Your task to perform on an android device: turn on translation in the chrome app Image 0: 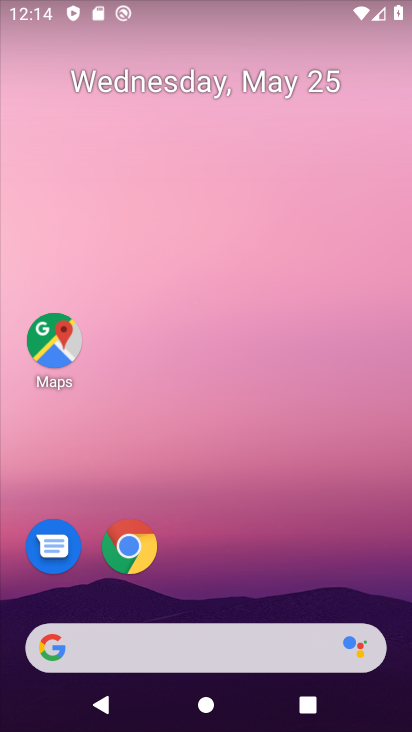
Step 0: click (114, 536)
Your task to perform on an android device: turn on translation in the chrome app Image 1: 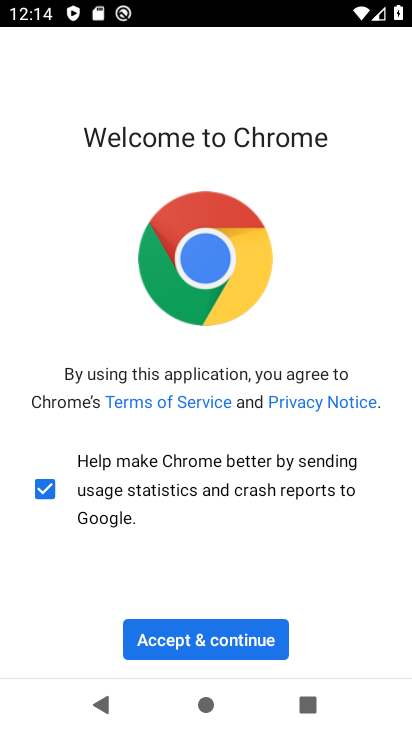
Step 1: click (254, 650)
Your task to perform on an android device: turn on translation in the chrome app Image 2: 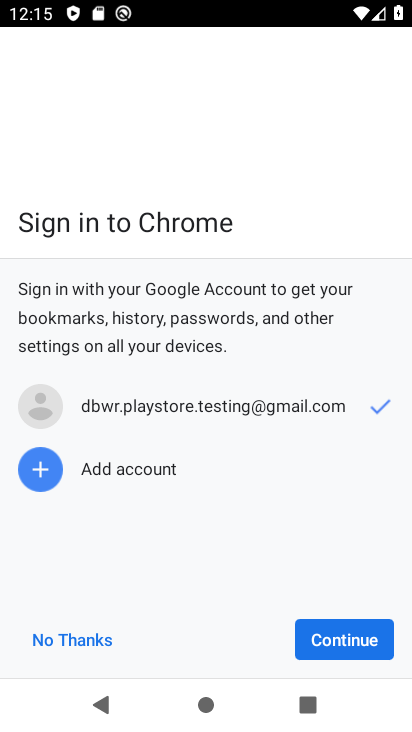
Step 2: click (317, 644)
Your task to perform on an android device: turn on translation in the chrome app Image 3: 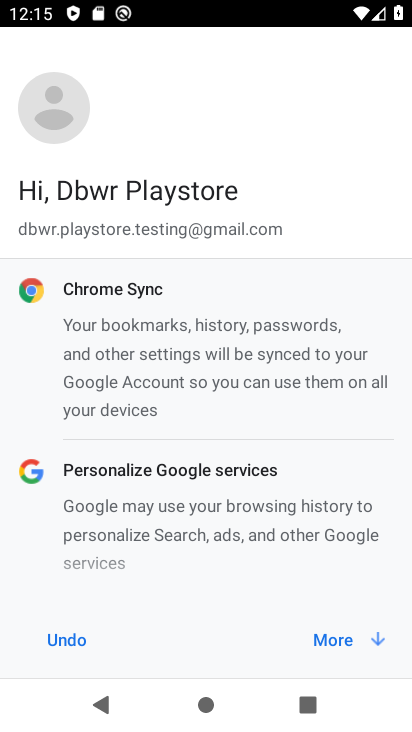
Step 3: click (317, 644)
Your task to perform on an android device: turn on translation in the chrome app Image 4: 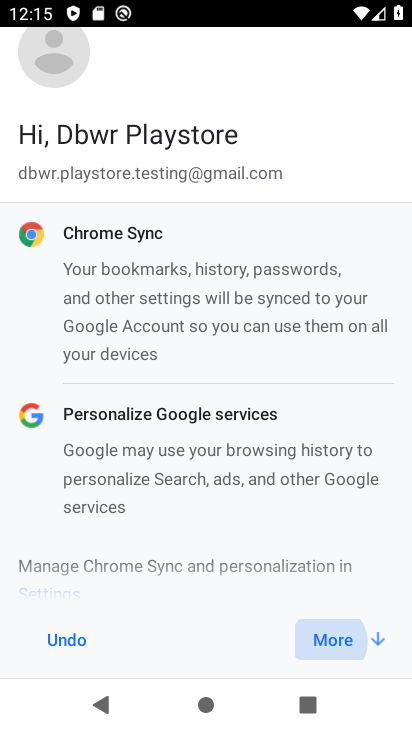
Step 4: click (317, 644)
Your task to perform on an android device: turn on translation in the chrome app Image 5: 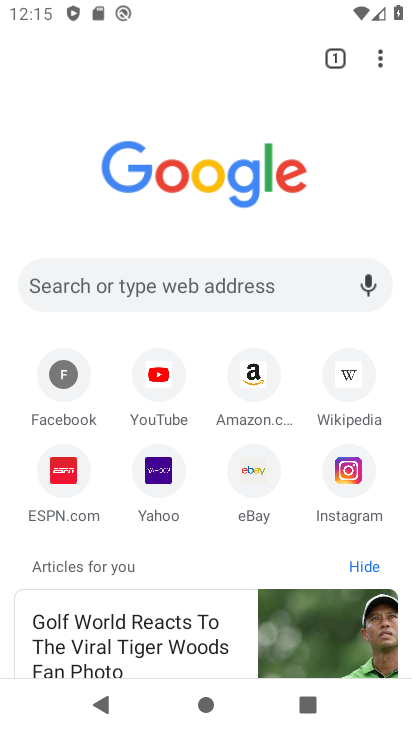
Step 5: click (393, 42)
Your task to perform on an android device: turn on translation in the chrome app Image 6: 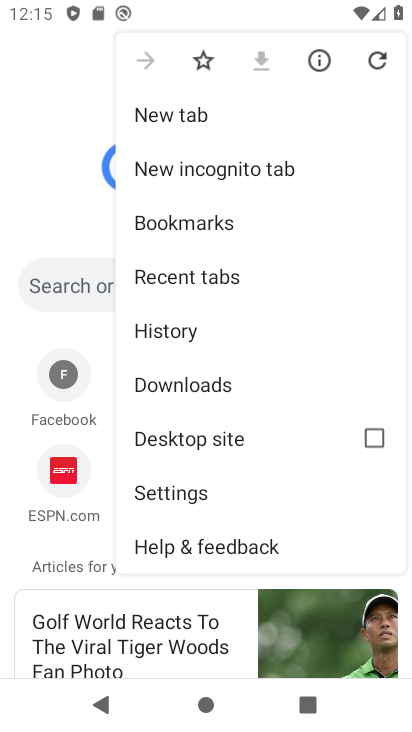
Step 6: click (231, 493)
Your task to perform on an android device: turn on translation in the chrome app Image 7: 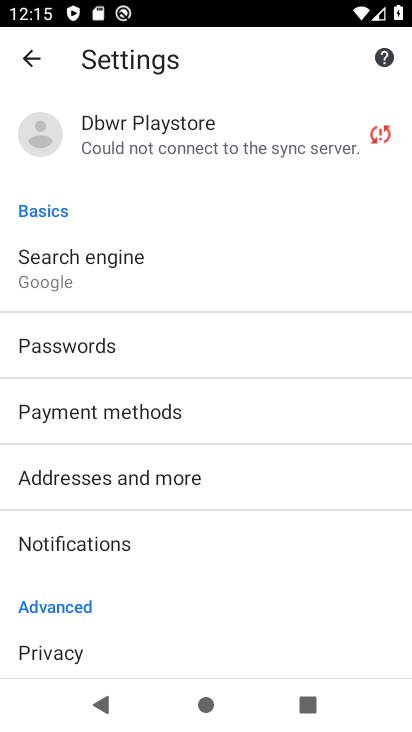
Step 7: drag from (176, 567) to (169, 244)
Your task to perform on an android device: turn on translation in the chrome app Image 8: 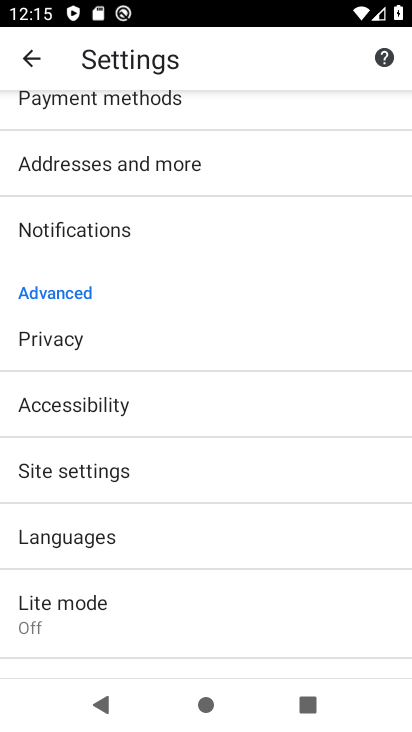
Step 8: click (172, 528)
Your task to perform on an android device: turn on translation in the chrome app Image 9: 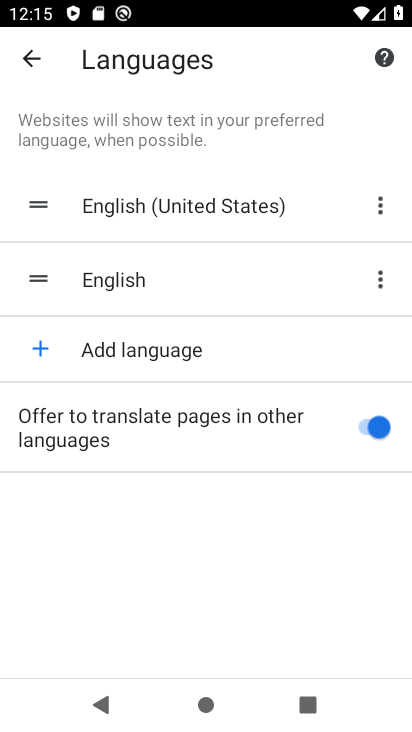
Step 9: click (332, 415)
Your task to perform on an android device: turn on translation in the chrome app Image 10: 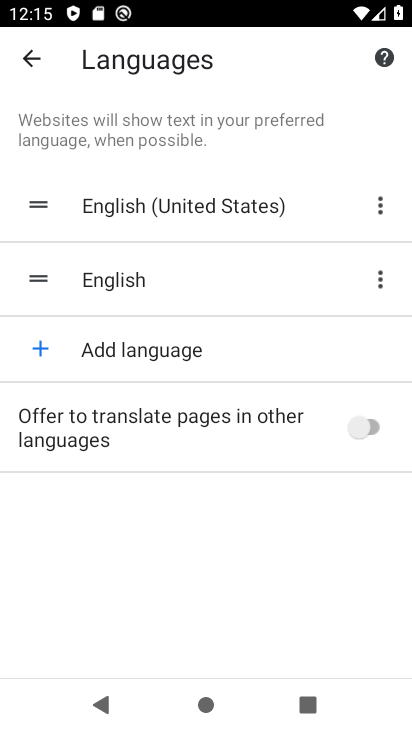
Step 10: click (332, 415)
Your task to perform on an android device: turn on translation in the chrome app Image 11: 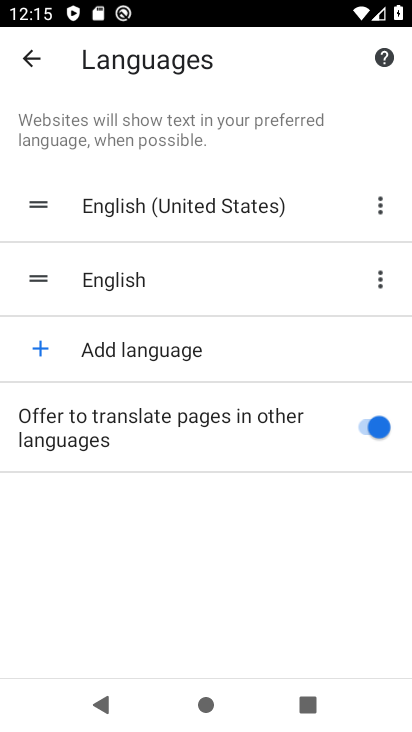
Step 11: task complete